Your task to perform on an android device: turn vacation reply on in the gmail app Image 0: 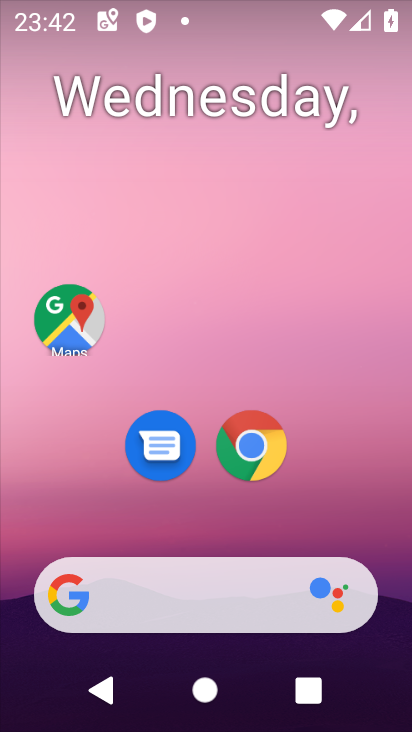
Step 0: drag from (330, 486) to (330, 168)
Your task to perform on an android device: turn vacation reply on in the gmail app Image 1: 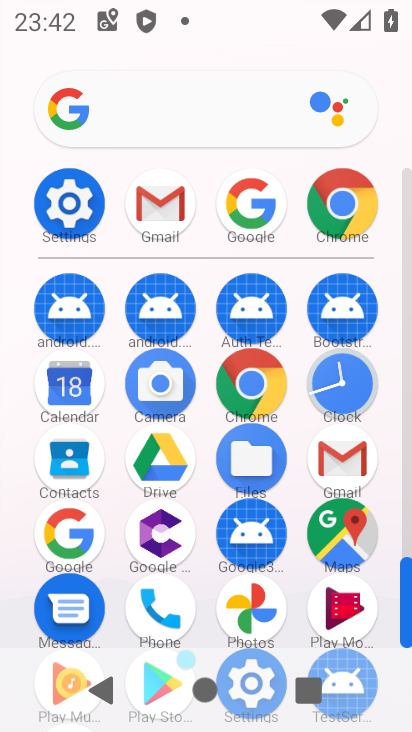
Step 1: click (354, 450)
Your task to perform on an android device: turn vacation reply on in the gmail app Image 2: 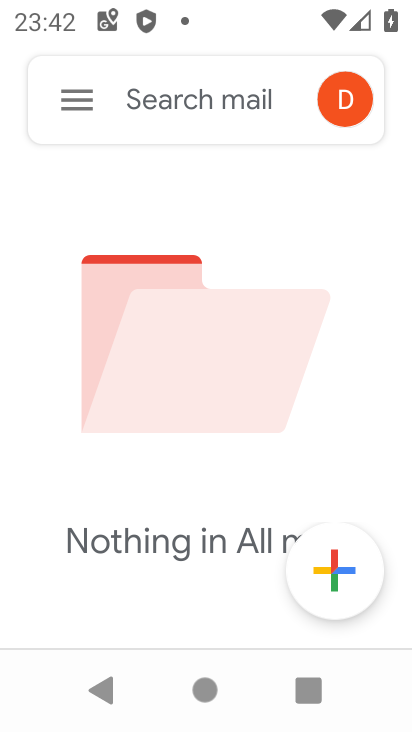
Step 2: click (71, 83)
Your task to perform on an android device: turn vacation reply on in the gmail app Image 3: 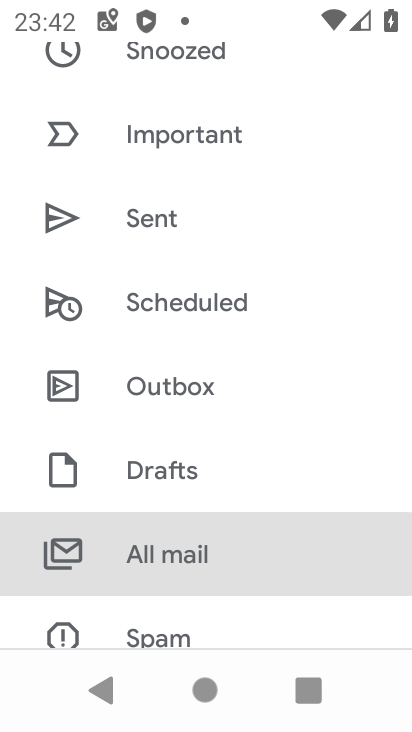
Step 3: drag from (211, 580) to (251, 200)
Your task to perform on an android device: turn vacation reply on in the gmail app Image 4: 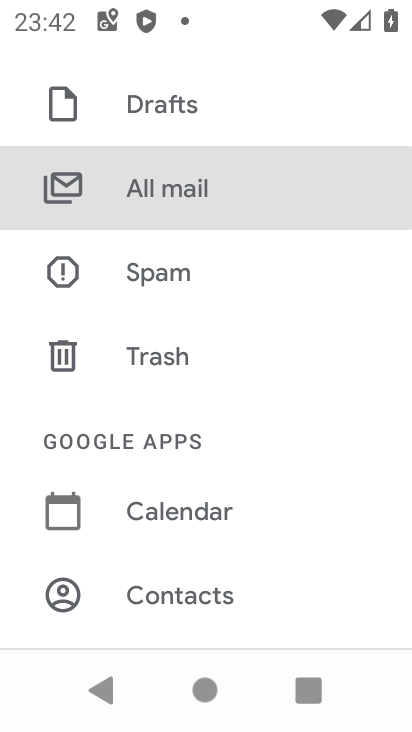
Step 4: drag from (184, 593) to (244, 242)
Your task to perform on an android device: turn vacation reply on in the gmail app Image 5: 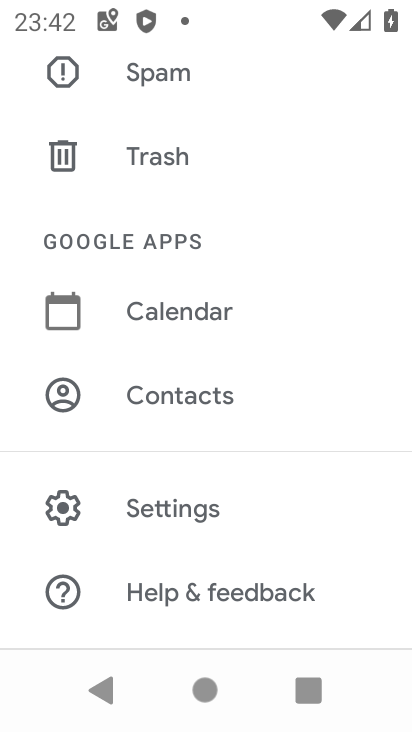
Step 5: click (171, 514)
Your task to perform on an android device: turn vacation reply on in the gmail app Image 6: 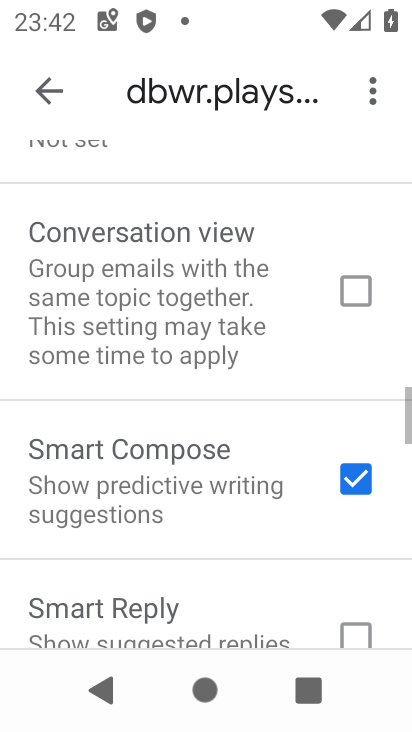
Step 6: drag from (148, 534) to (216, 217)
Your task to perform on an android device: turn vacation reply on in the gmail app Image 7: 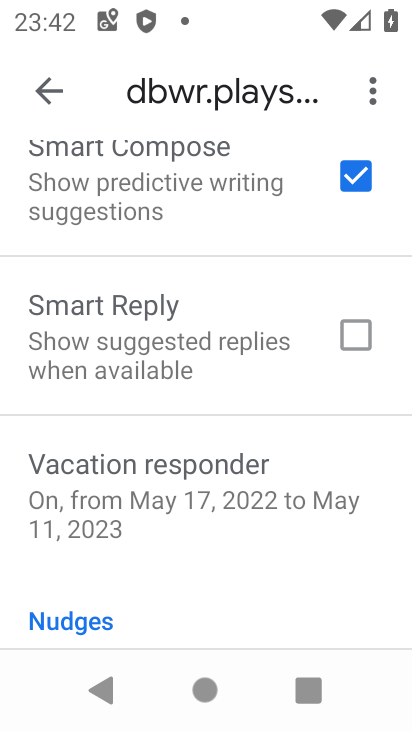
Step 7: click (217, 518)
Your task to perform on an android device: turn vacation reply on in the gmail app Image 8: 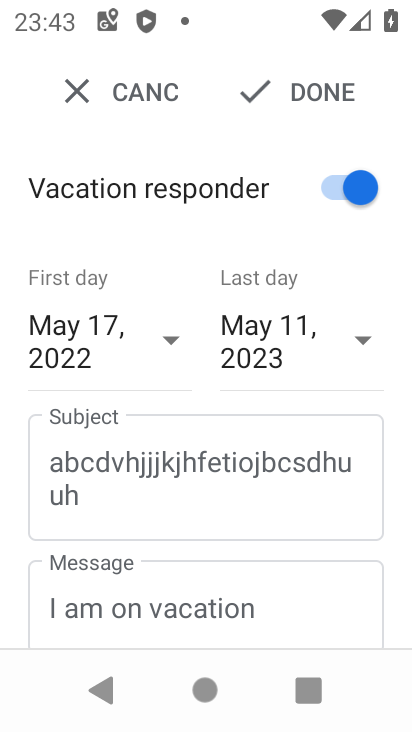
Step 8: task complete